Your task to perform on an android device: change the upload size in google photos Image 0: 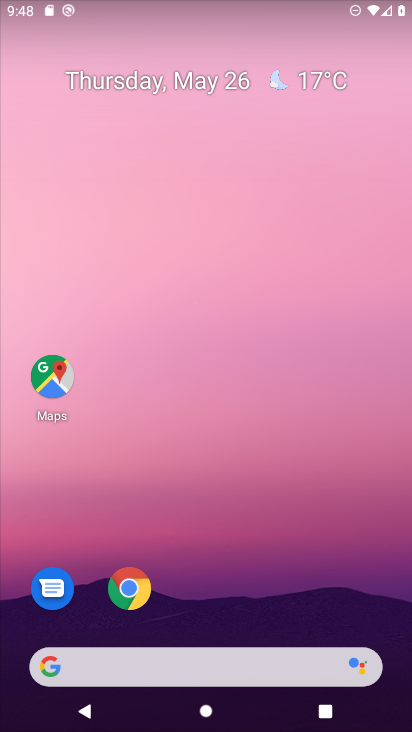
Step 0: drag from (350, 624) to (279, 61)
Your task to perform on an android device: change the upload size in google photos Image 1: 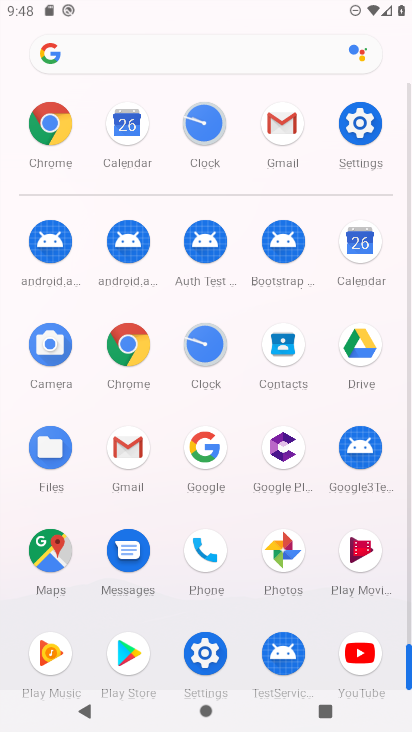
Step 1: click (283, 552)
Your task to perform on an android device: change the upload size in google photos Image 2: 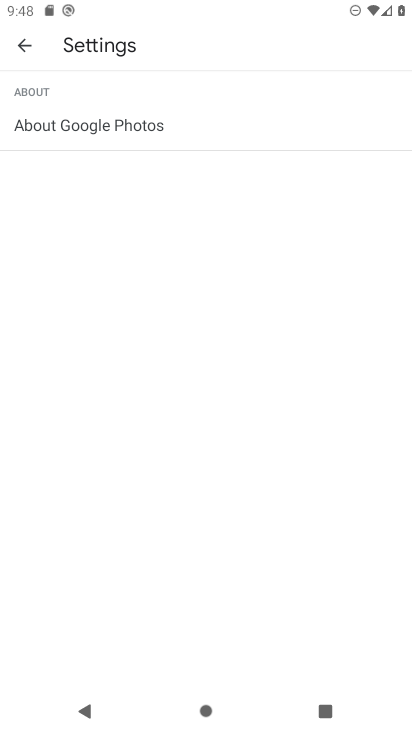
Step 2: press back button
Your task to perform on an android device: change the upload size in google photos Image 3: 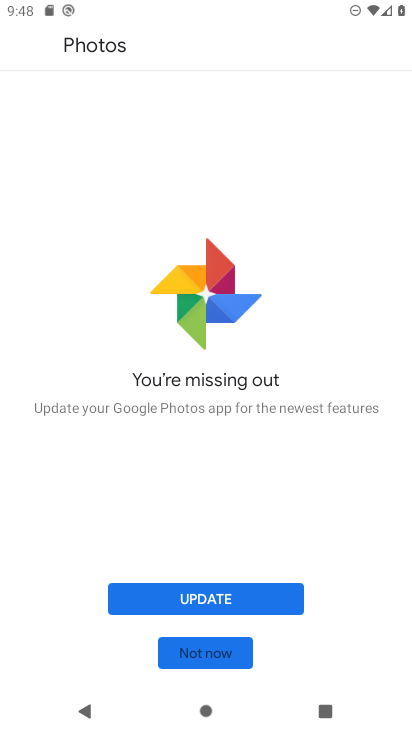
Step 3: click (199, 597)
Your task to perform on an android device: change the upload size in google photos Image 4: 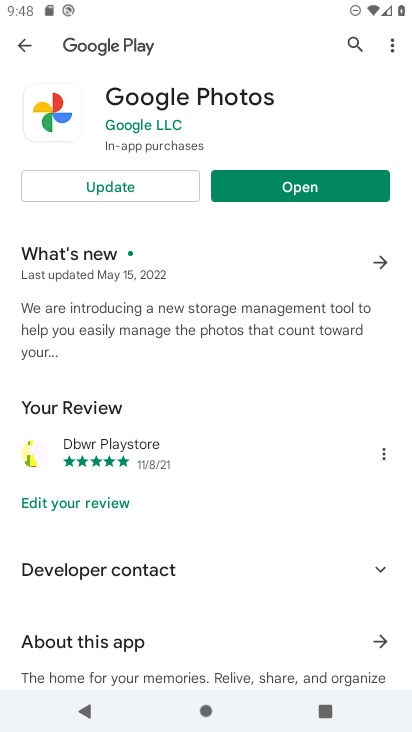
Step 4: click (115, 184)
Your task to perform on an android device: change the upload size in google photos Image 5: 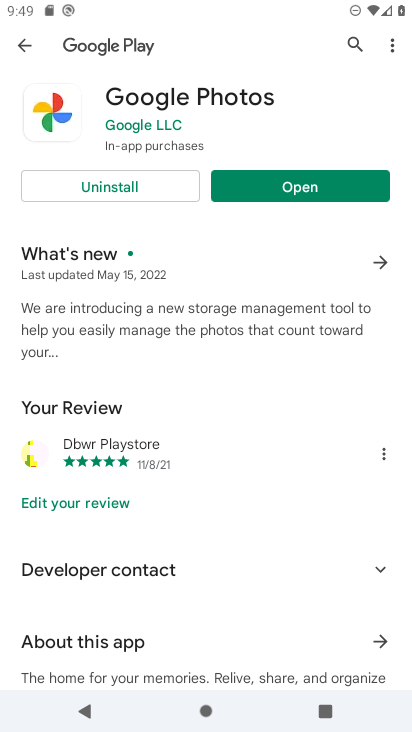
Step 5: click (301, 190)
Your task to perform on an android device: change the upload size in google photos Image 6: 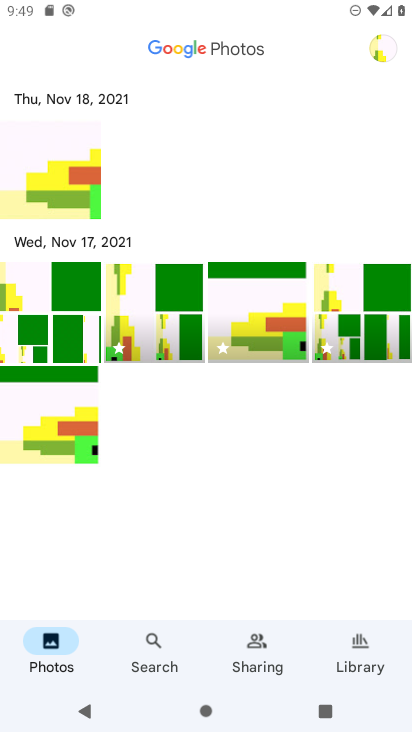
Step 6: click (387, 55)
Your task to perform on an android device: change the upload size in google photos Image 7: 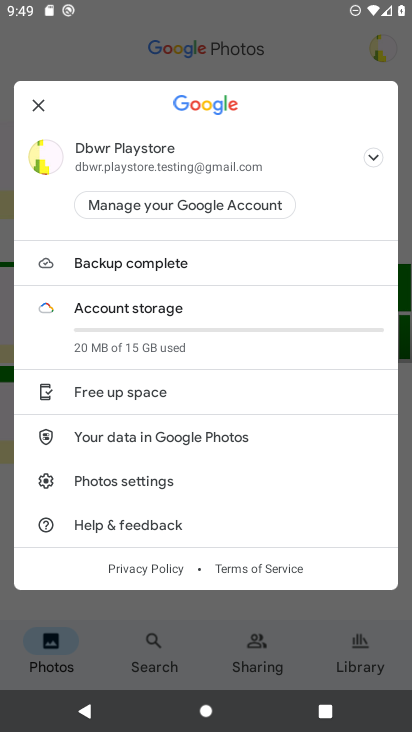
Step 7: click (129, 487)
Your task to perform on an android device: change the upload size in google photos Image 8: 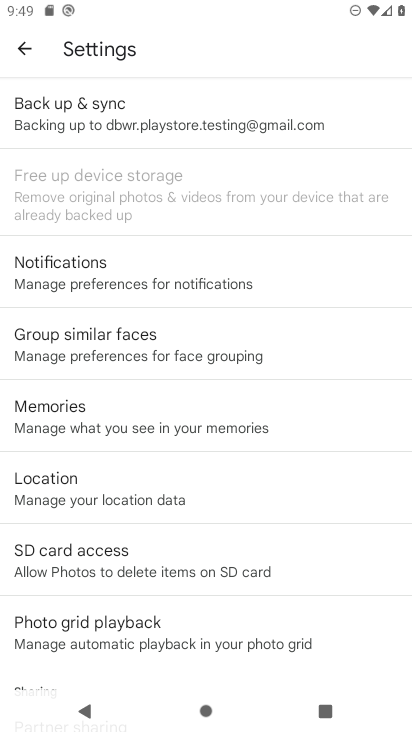
Step 8: click (120, 110)
Your task to perform on an android device: change the upload size in google photos Image 9: 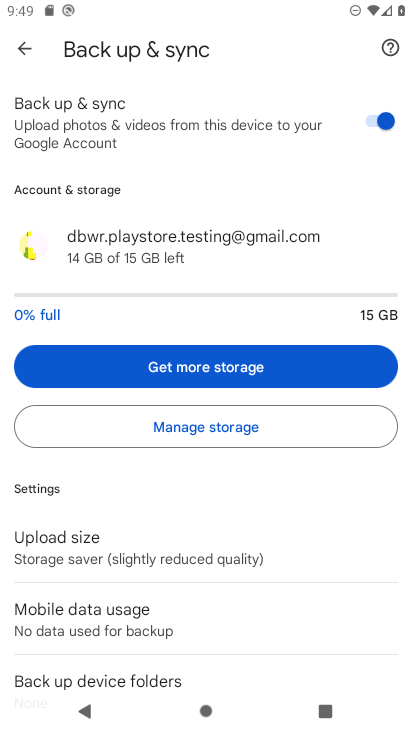
Step 9: click (86, 536)
Your task to perform on an android device: change the upload size in google photos Image 10: 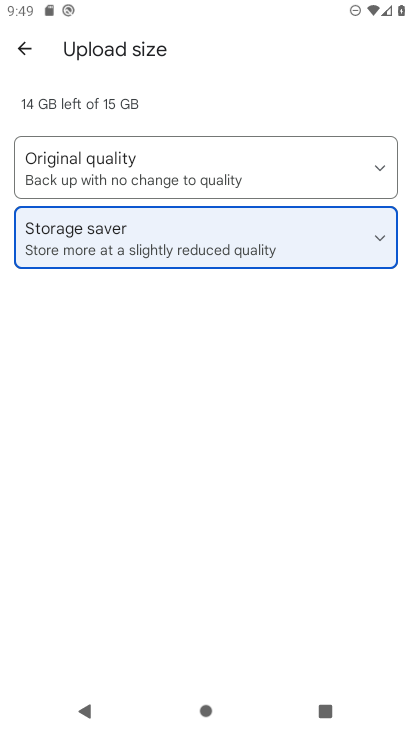
Step 10: click (140, 177)
Your task to perform on an android device: change the upload size in google photos Image 11: 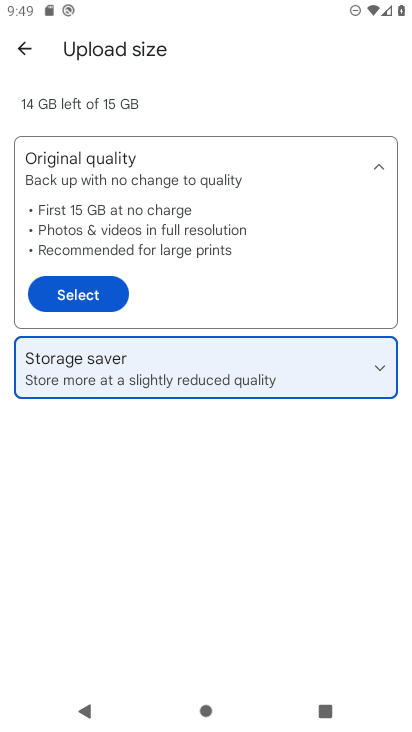
Step 11: click (96, 295)
Your task to perform on an android device: change the upload size in google photos Image 12: 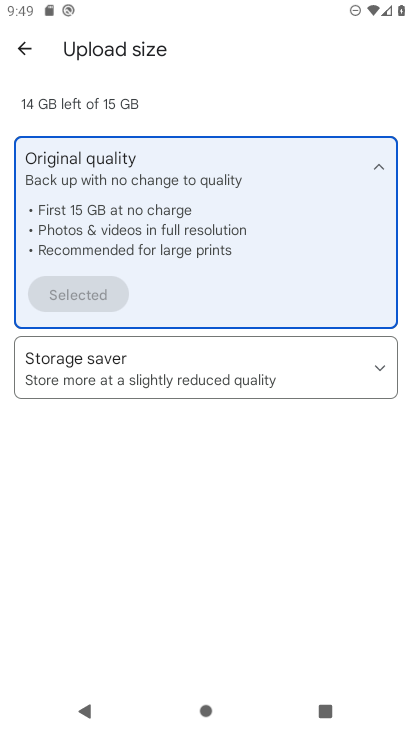
Step 12: task complete